Your task to perform on an android device: set the stopwatch Image 0: 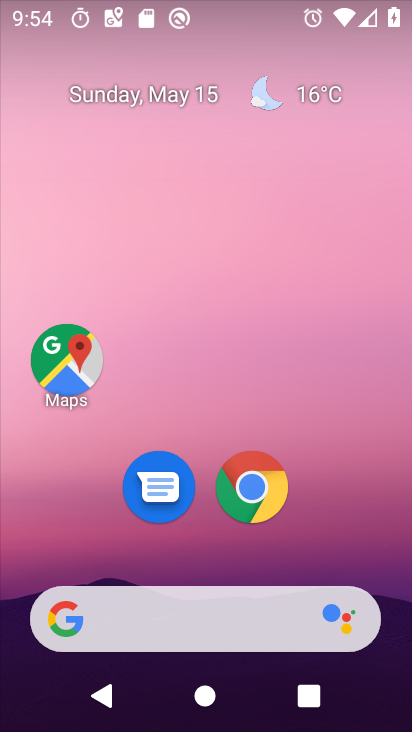
Step 0: drag from (339, 536) to (322, 142)
Your task to perform on an android device: set the stopwatch Image 1: 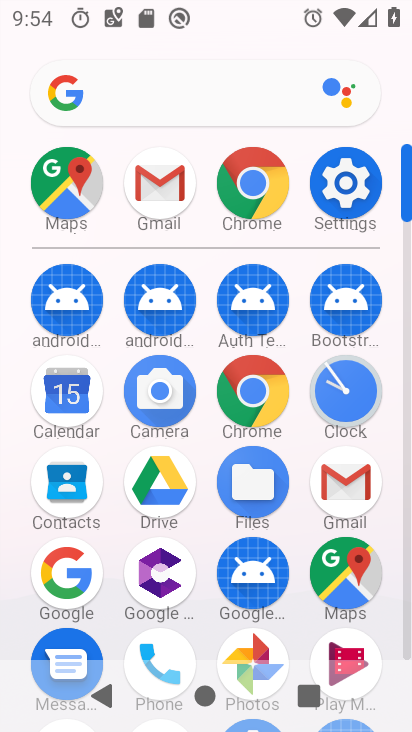
Step 1: click (339, 371)
Your task to perform on an android device: set the stopwatch Image 2: 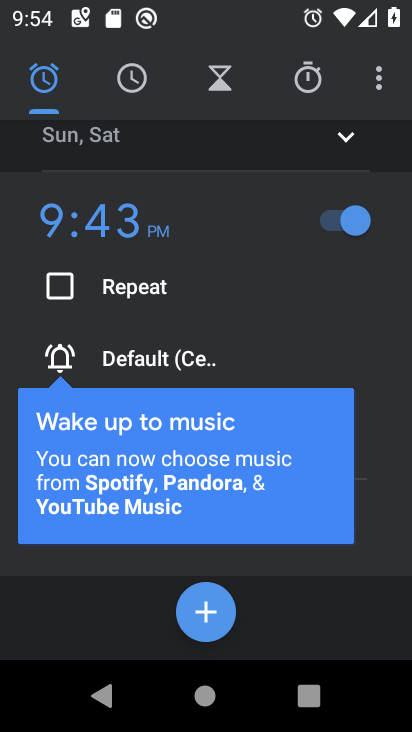
Step 2: click (209, 609)
Your task to perform on an android device: set the stopwatch Image 3: 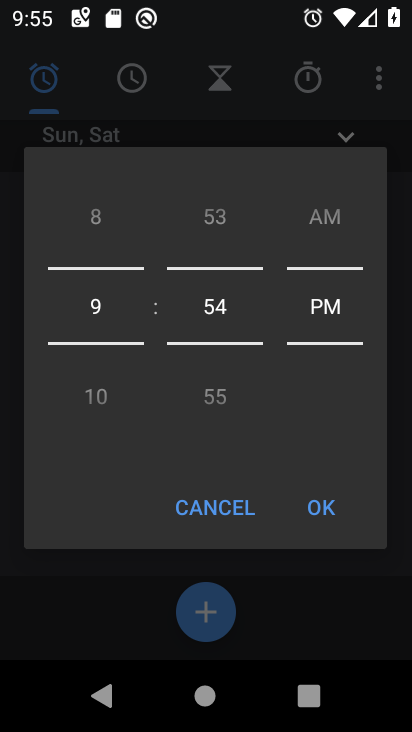
Step 3: click (319, 513)
Your task to perform on an android device: set the stopwatch Image 4: 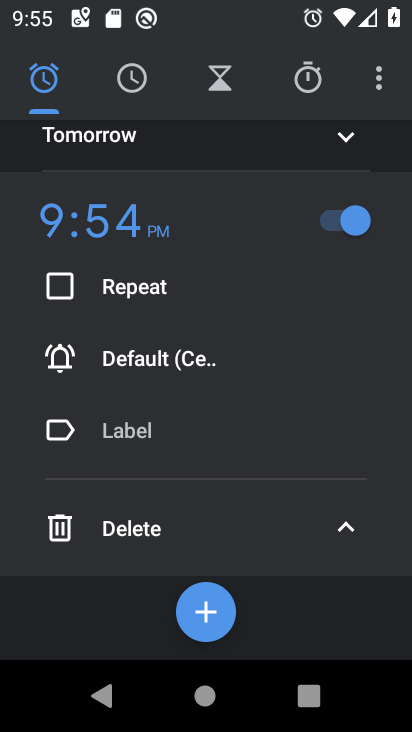
Step 4: click (296, 82)
Your task to perform on an android device: set the stopwatch Image 5: 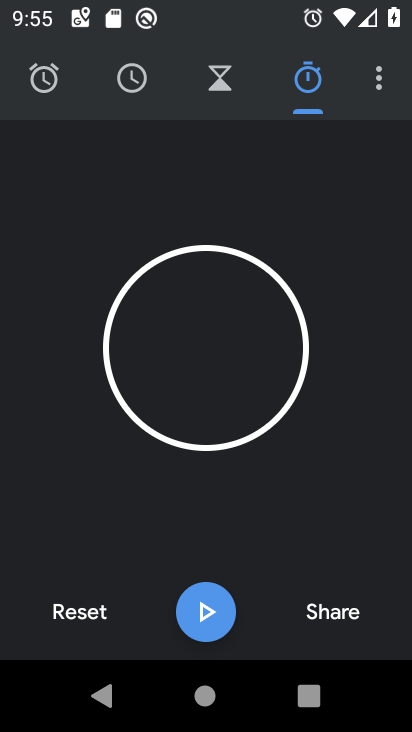
Step 5: click (51, 620)
Your task to perform on an android device: set the stopwatch Image 6: 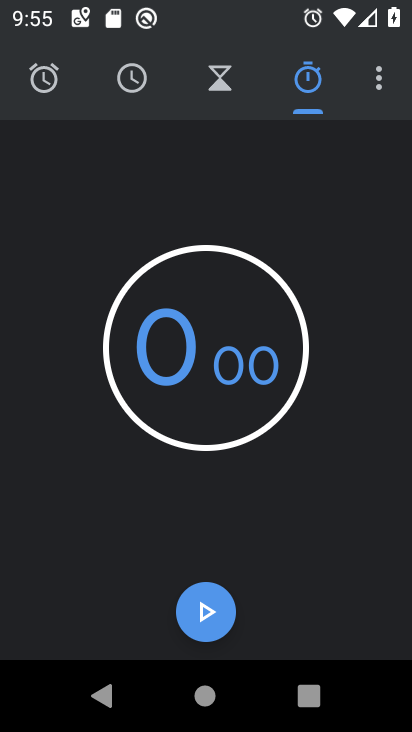
Step 6: click (225, 618)
Your task to perform on an android device: set the stopwatch Image 7: 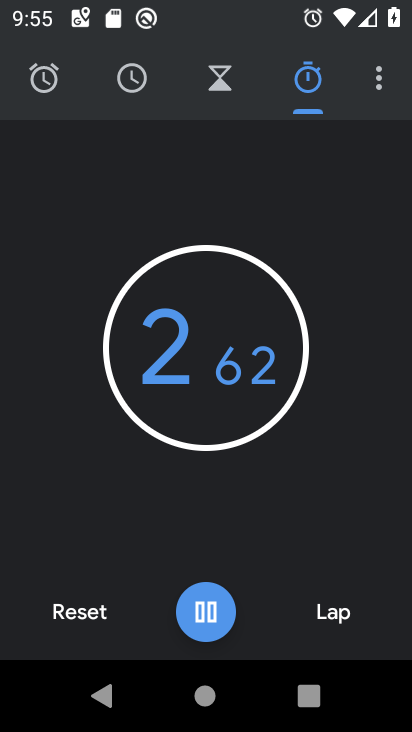
Step 7: click (222, 608)
Your task to perform on an android device: set the stopwatch Image 8: 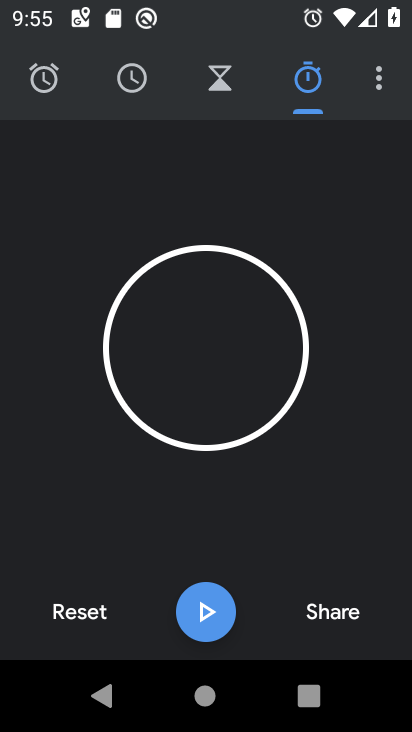
Step 8: task complete